Your task to perform on an android device: When is my next appointment? Image 0: 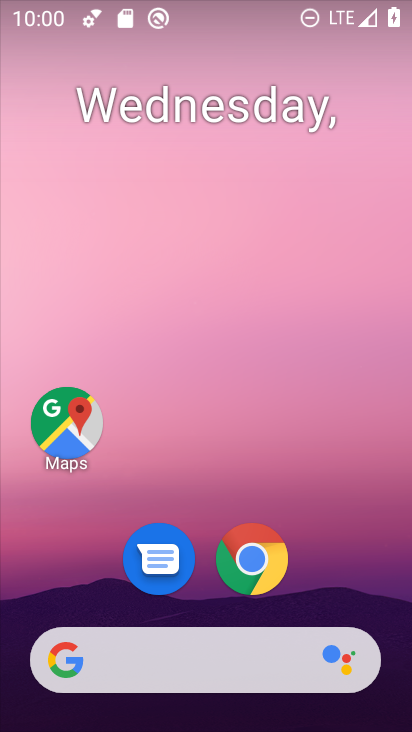
Step 0: drag from (342, 556) to (273, 64)
Your task to perform on an android device: When is my next appointment? Image 1: 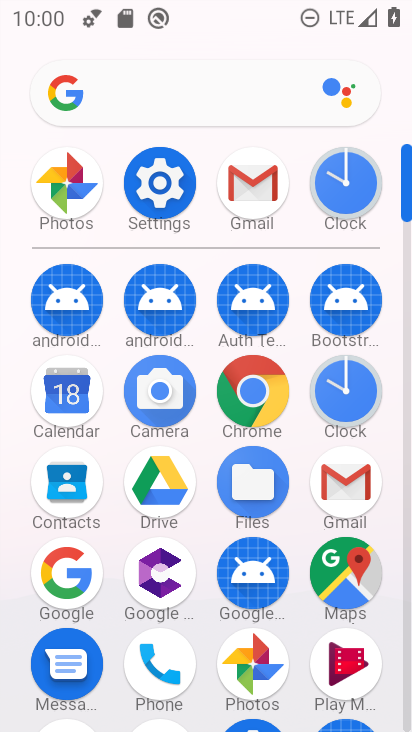
Step 1: click (69, 399)
Your task to perform on an android device: When is my next appointment? Image 2: 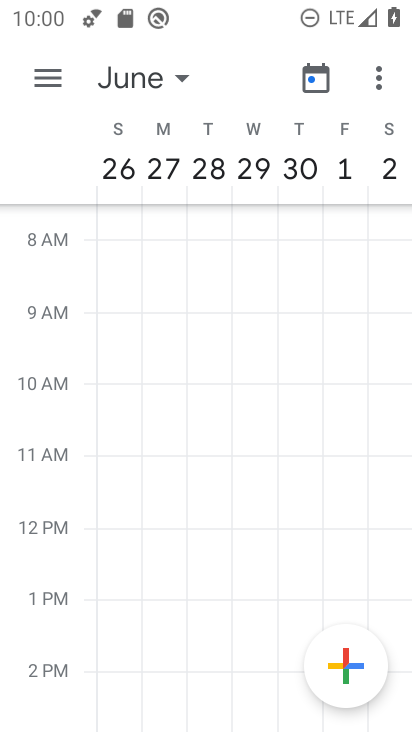
Step 2: click (45, 79)
Your task to perform on an android device: When is my next appointment? Image 3: 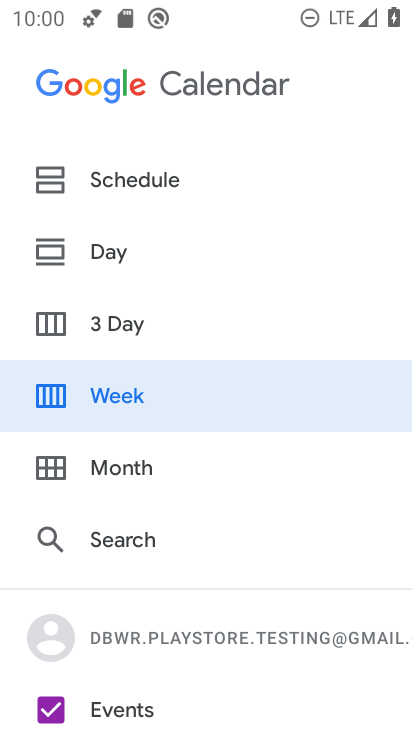
Step 3: click (114, 465)
Your task to perform on an android device: When is my next appointment? Image 4: 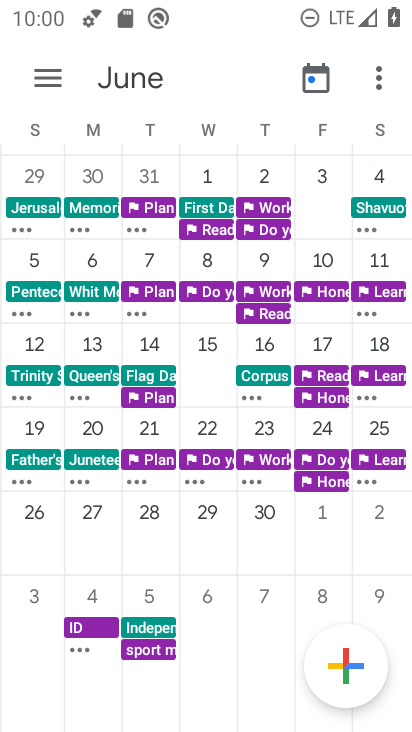
Step 4: drag from (49, 322) to (403, 335)
Your task to perform on an android device: When is my next appointment? Image 5: 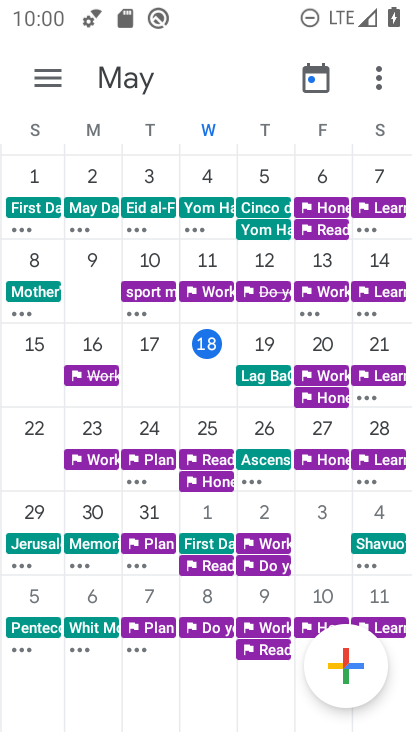
Step 5: click (207, 341)
Your task to perform on an android device: When is my next appointment? Image 6: 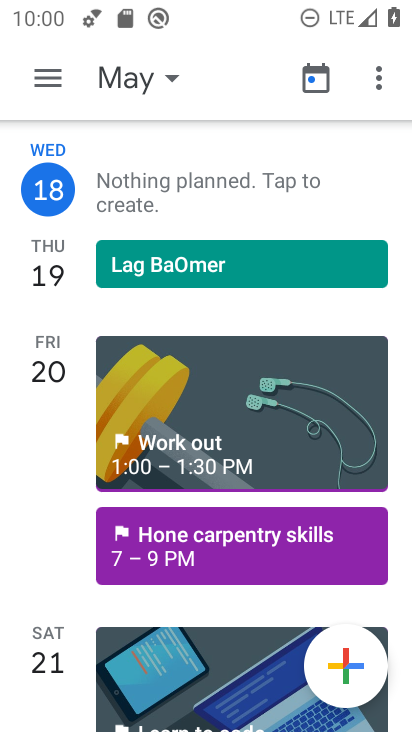
Step 6: task complete